Your task to perform on an android device: Open Google Maps Image 0: 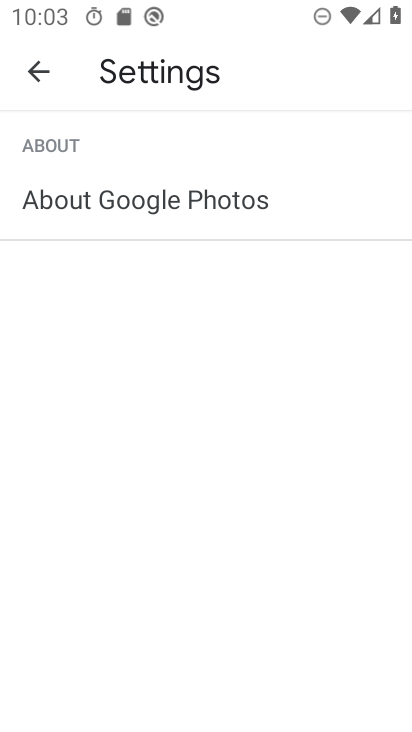
Step 0: press home button
Your task to perform on an android device: Open Google Maps Image 1: 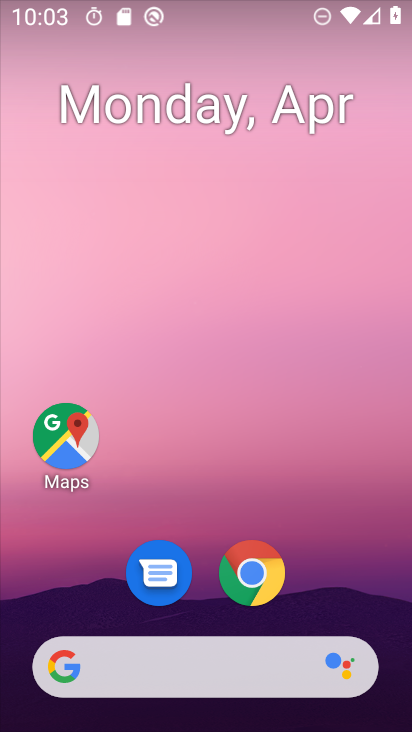
Step 1: drag from (316, 561) to (342, 57)
Your task to perform on an android device: Open Google Maps Image 2: 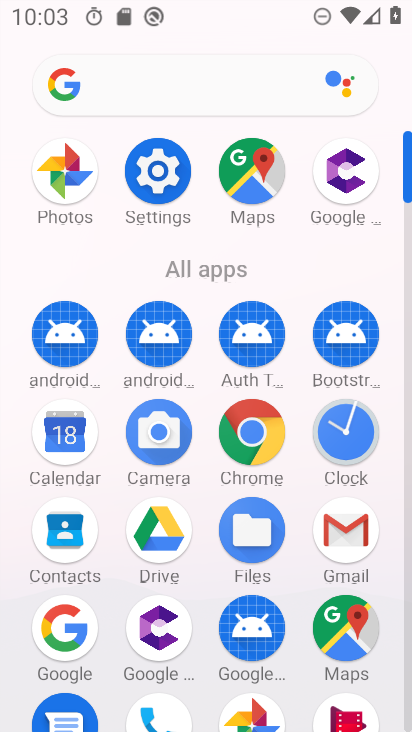
Step 2: click (258, 176)
Your task to perform on an android device: Open Google Maps Image 3: 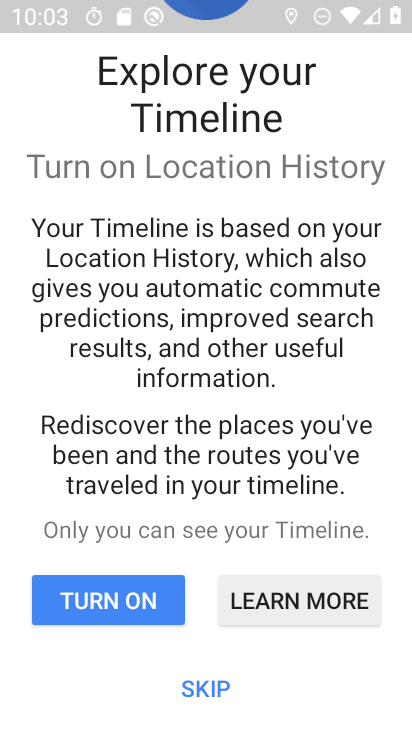
Step 3: task complete